Your task to perform on an android device: delete browsing data in the chrome app Image 0: 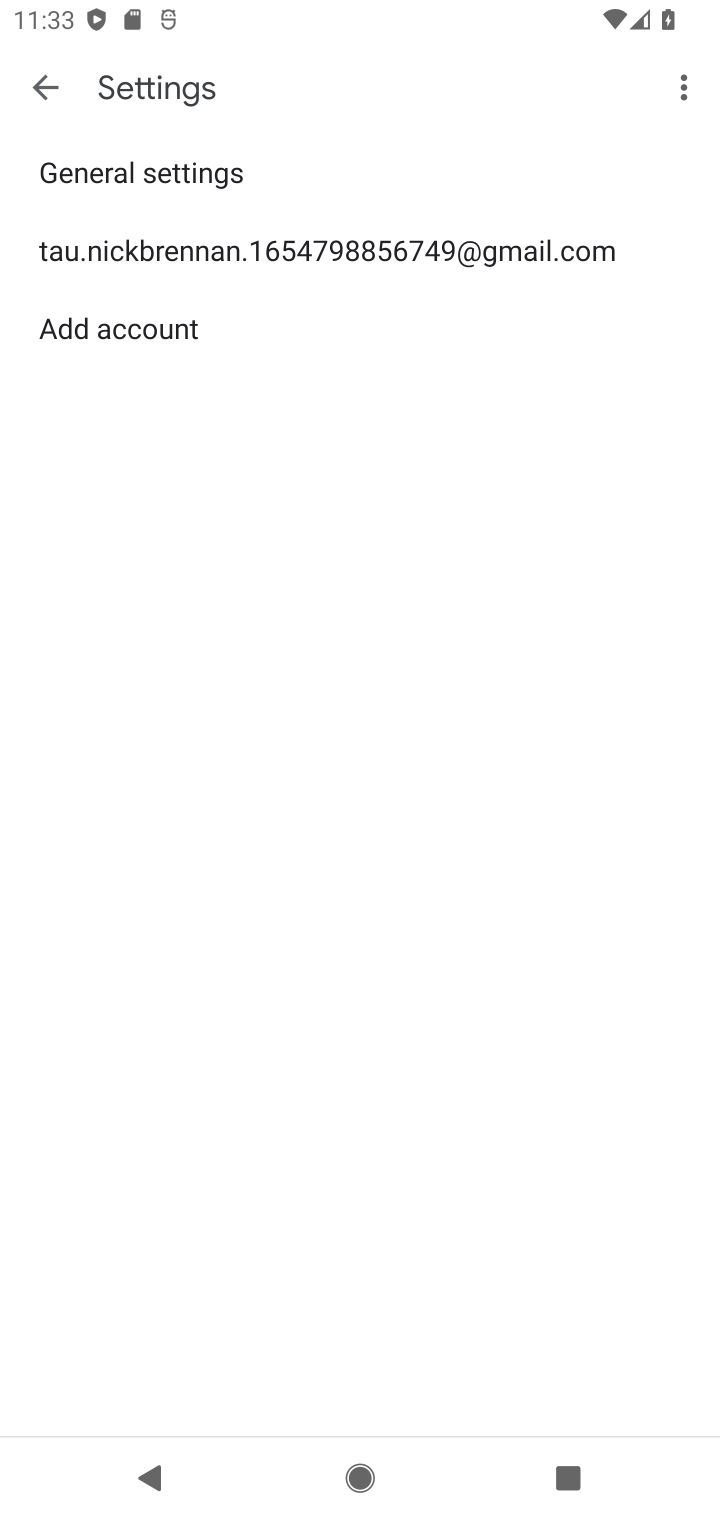
Step 0: press home button
Your task to perform on an android device: delete browsing data in the chrome app Image 1: 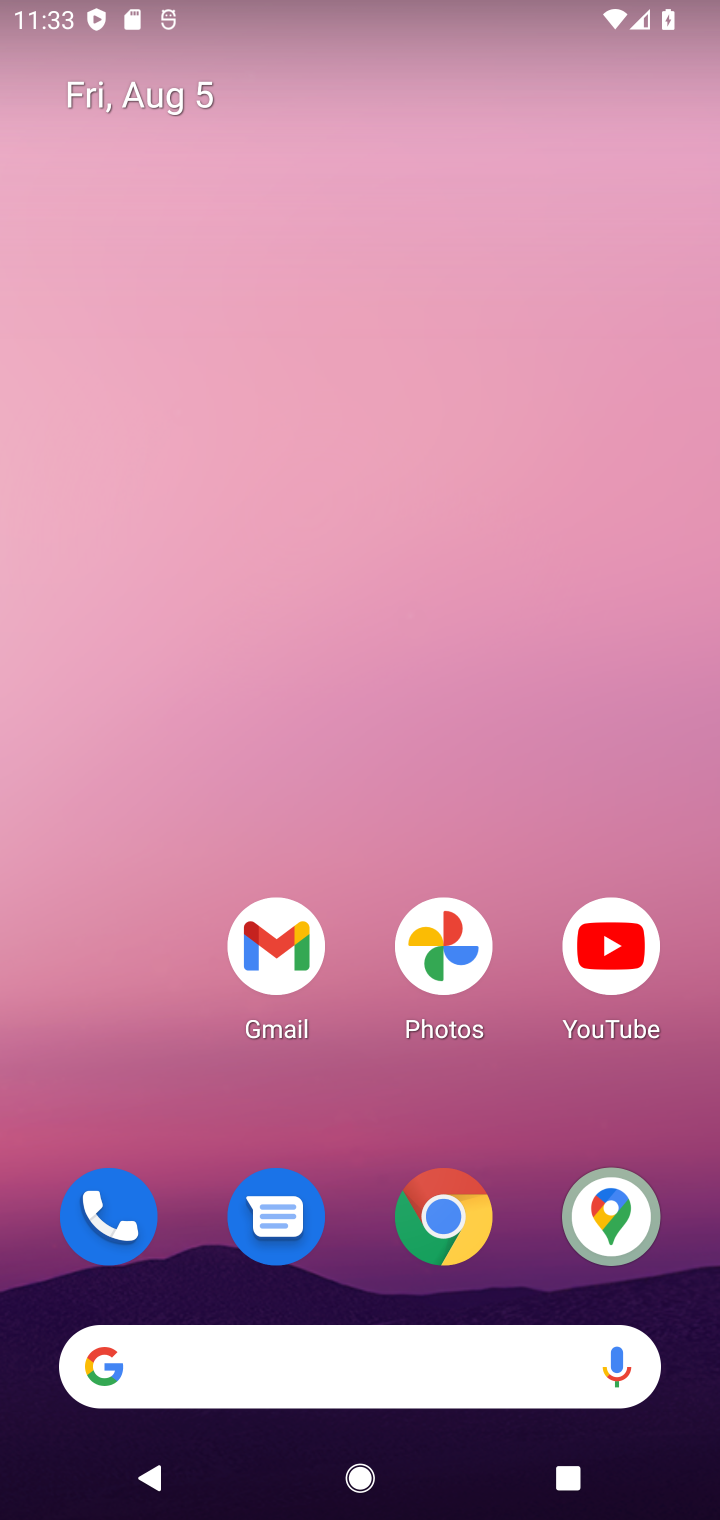
Step 1: click (436, 1199)
Your task to perform on an android device: delete browsing data in the chrome app Image 2: 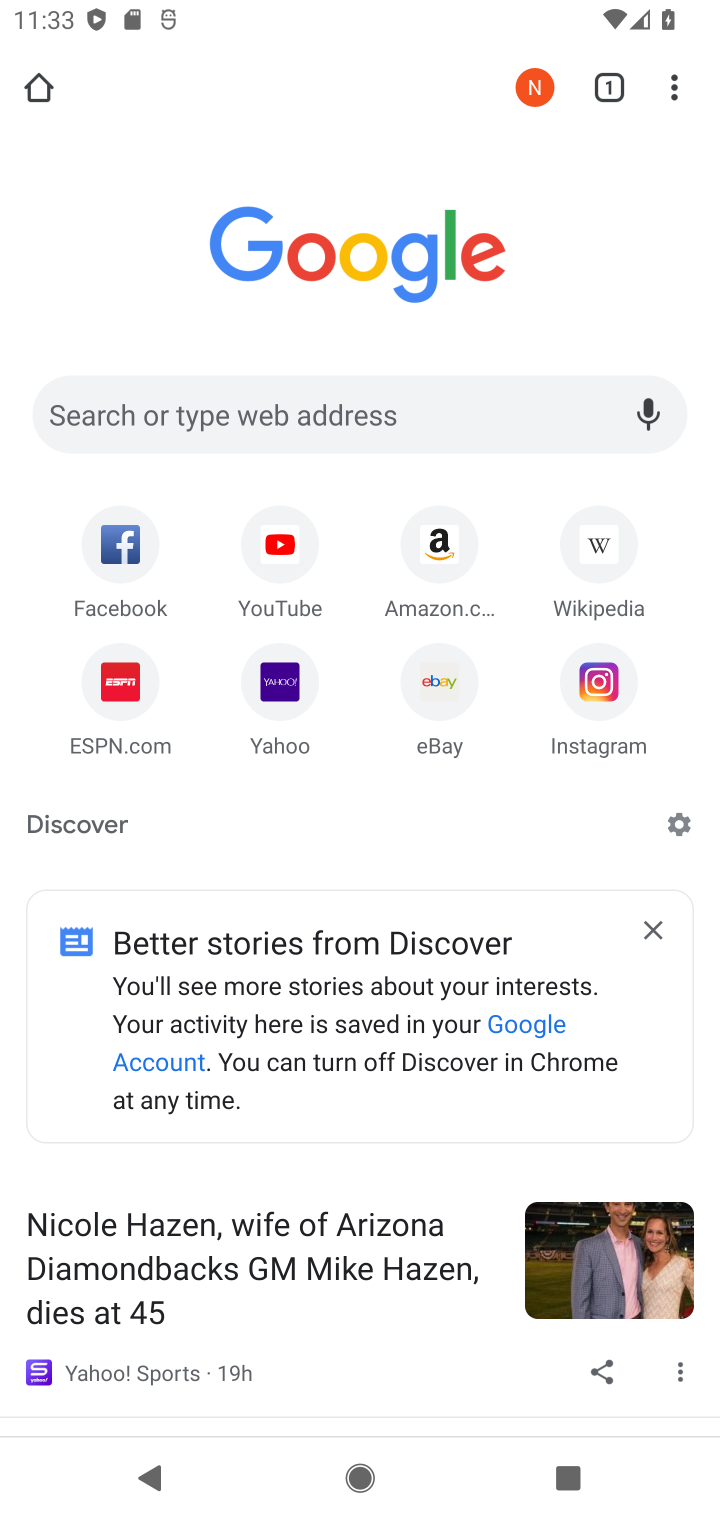
Step 2: click (676, 86)
Your task to perform on an android device: delete browsing data in the chrome app Image 3: 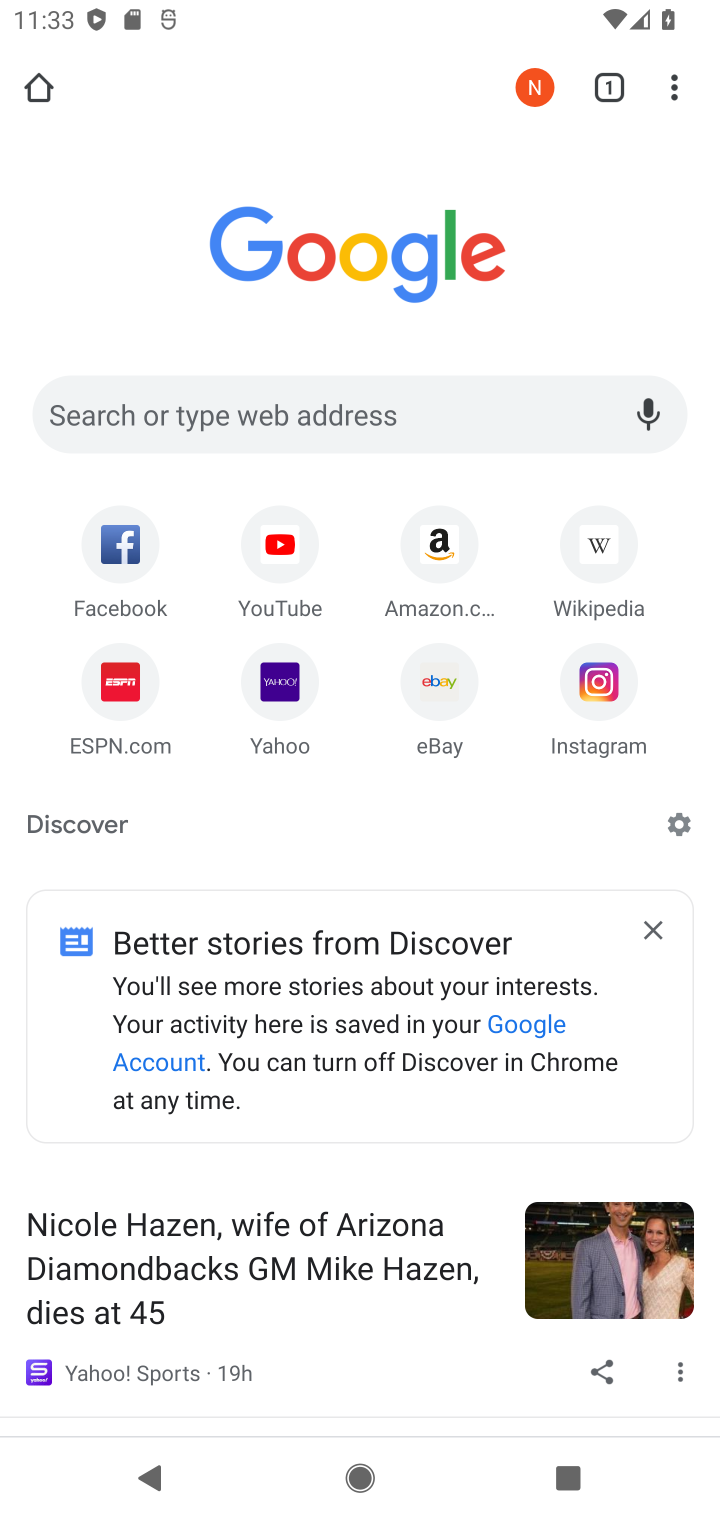
Step 3: click (667, 95)
Your task to perform on an android device: delete browsing data in the chrome app Image 4: 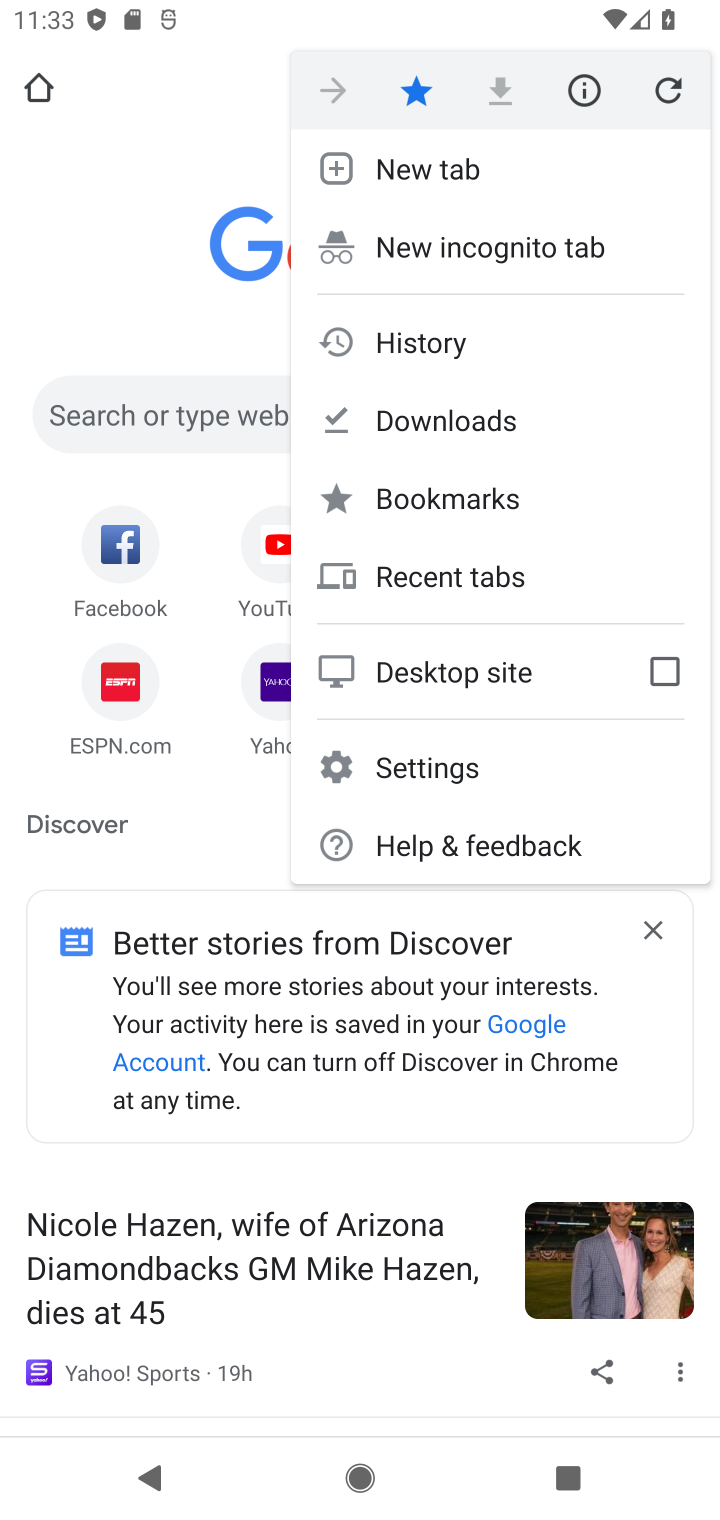
Step 4: click (448, 342)
Your task to perform on an android device: delete browsing data in the chrome app Image 5: 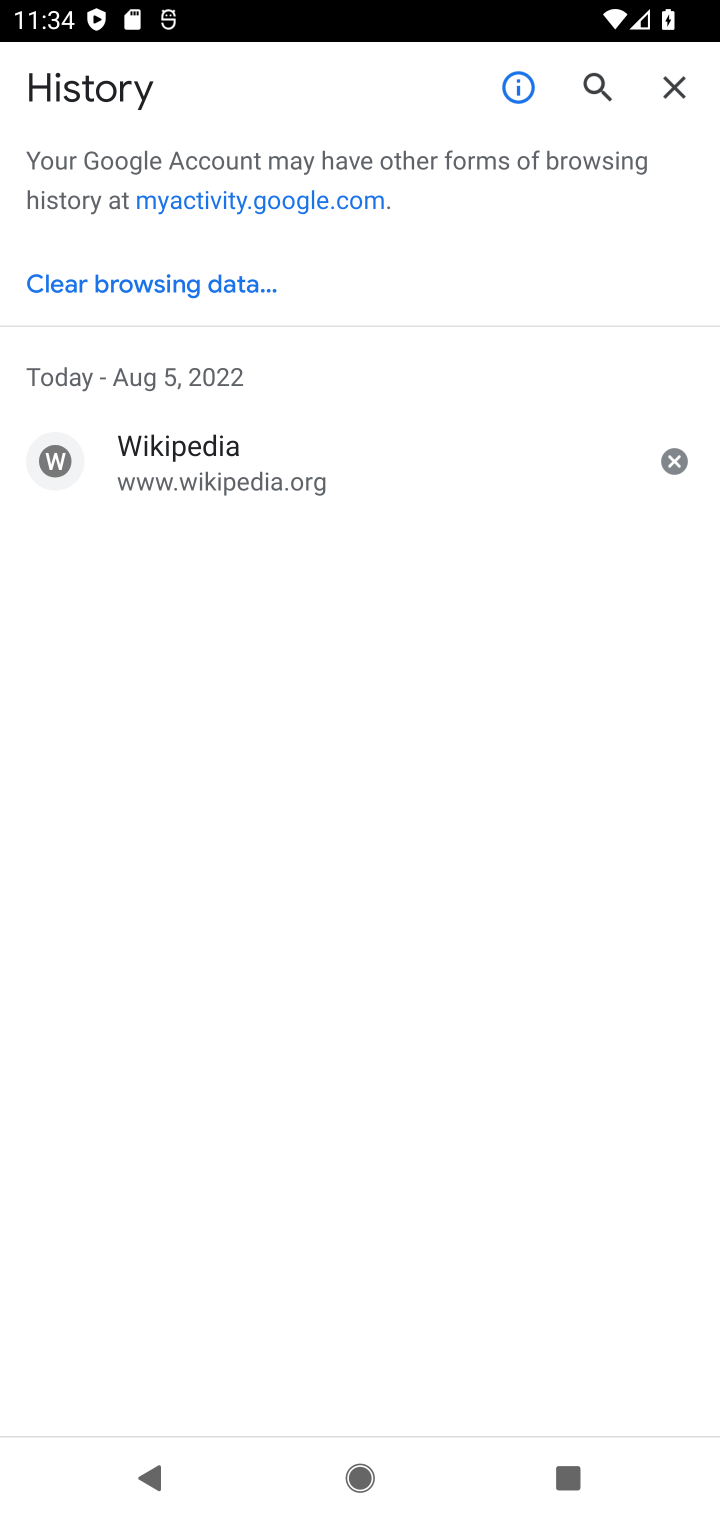
Step 5: click (165, 281)
Your task to perform on an android device: delete browsing data in the chrome app Image 6: 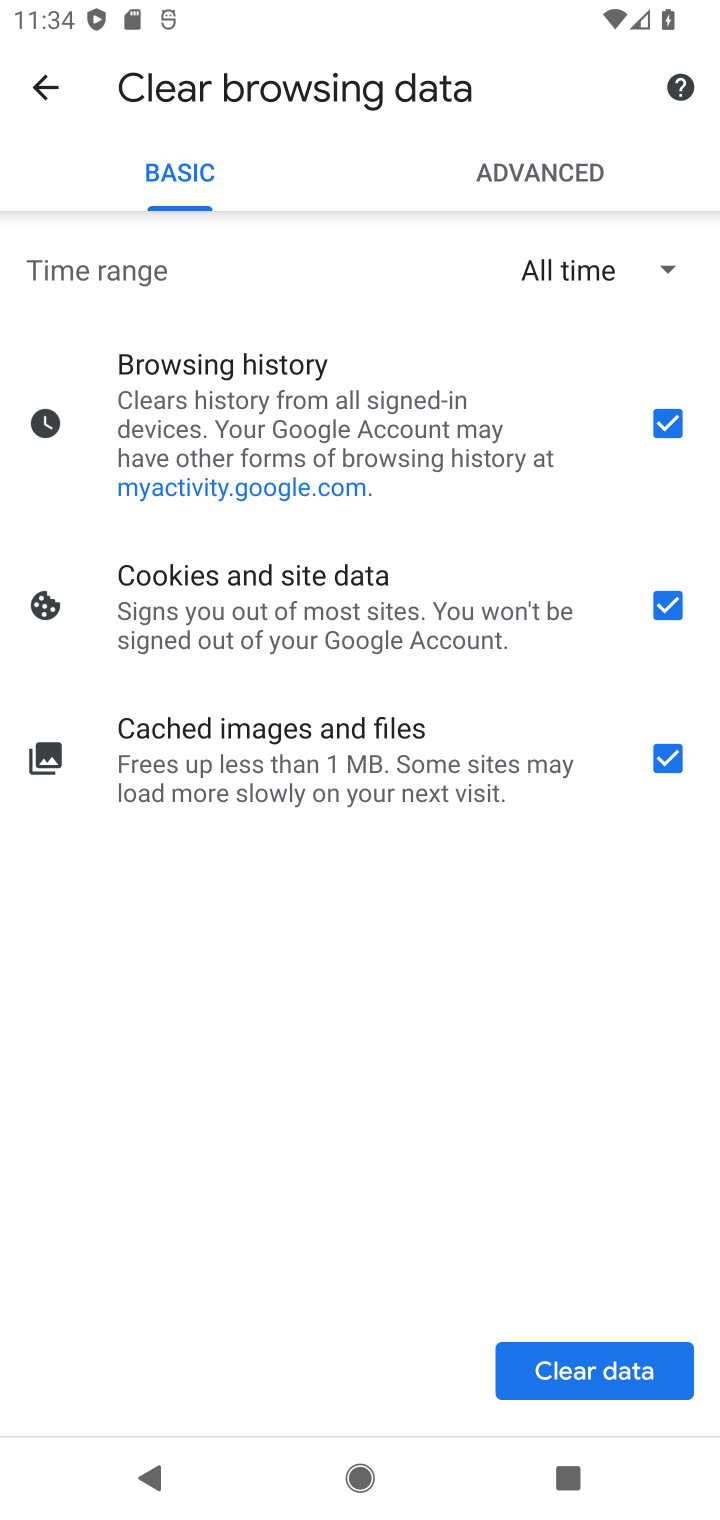
Step 6: click (568, 1371)
Your task to perform on an android device: delete browsing data in the chrome app Image 7: 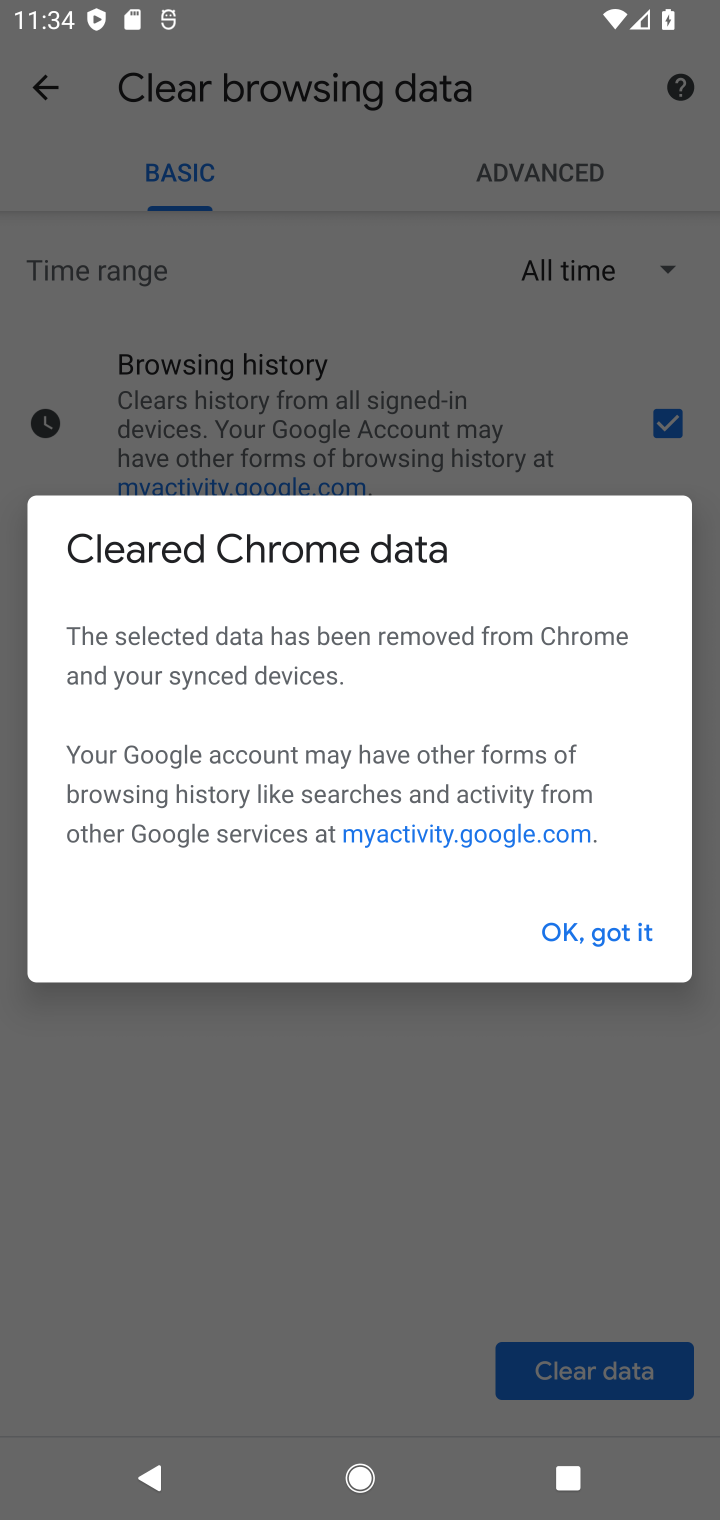
Step 7: click (635, 923)
Your task to perform on an android device: delete browsing data in the chrome app Image 8: 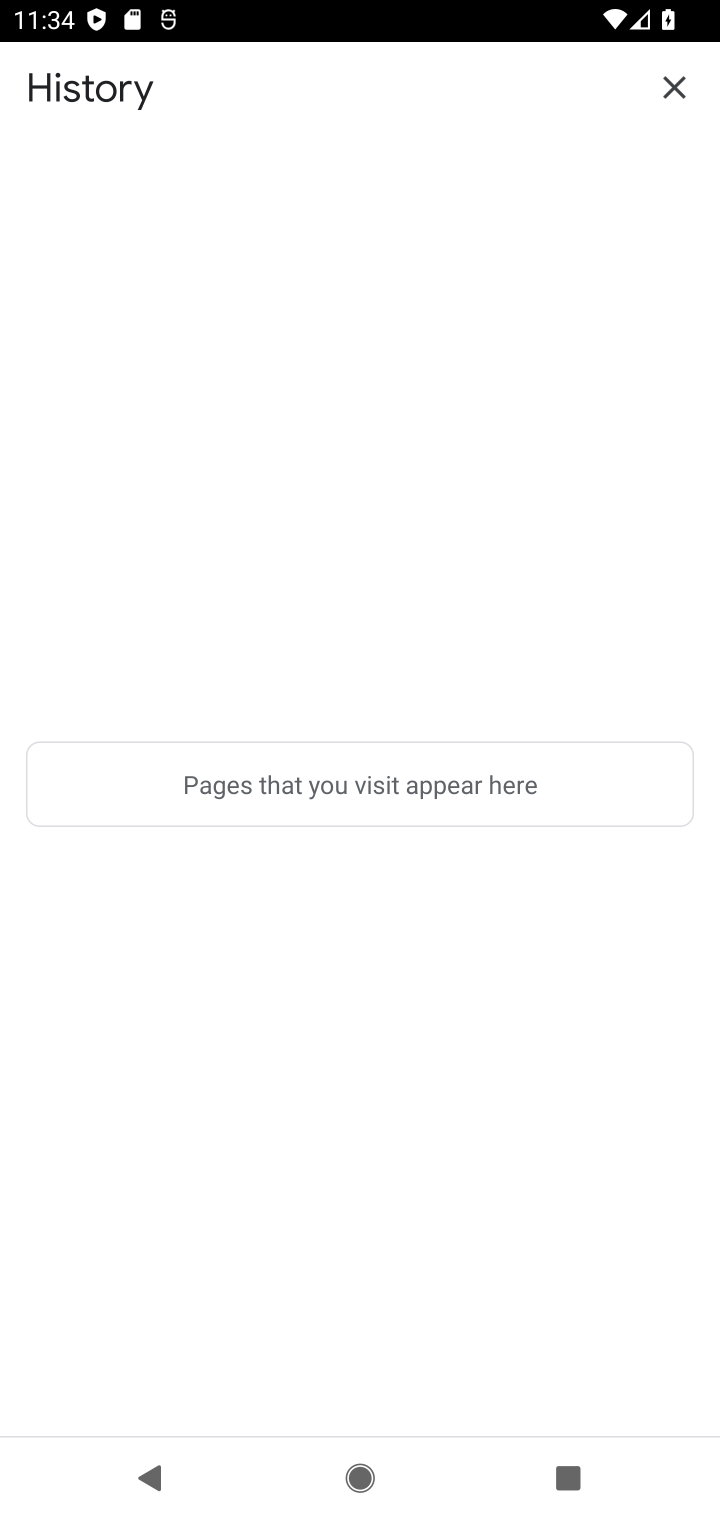
Step 8: task complete